Your task to perform on an android device: Search for Mexican restaurants on Maps Image 0: 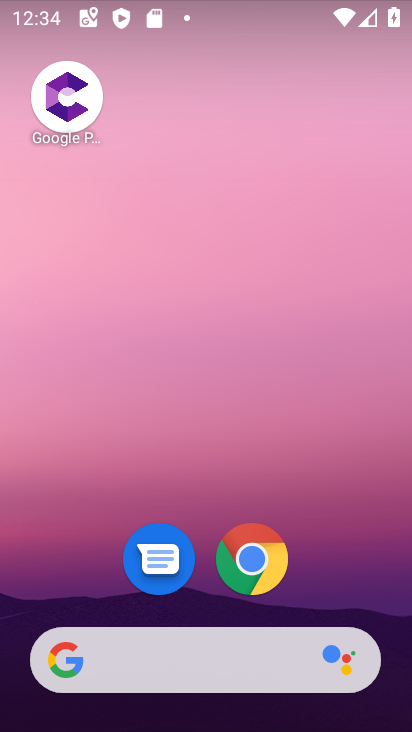
Step 0: drag from (195, 715) to (221, 33)
Your task to perform on an android device: Search for Mexican restaurants on Maps Image 1: 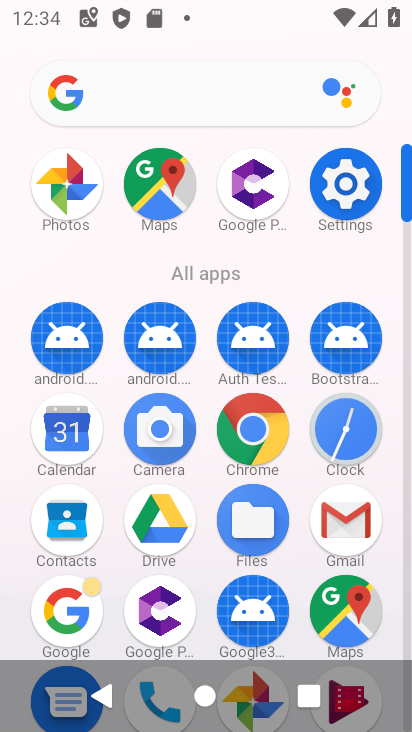
Step 1: click (159, 197)
Your task to perform on an android device: Search for Mexican restaurants on Maps Image 2: 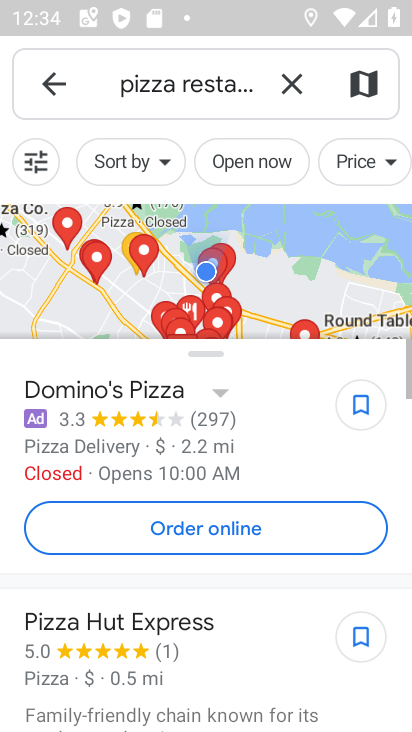
Step 2: click (291, 88)
Your task to perform on an android device: Search for Mexican restaurants on Maps Image 3: 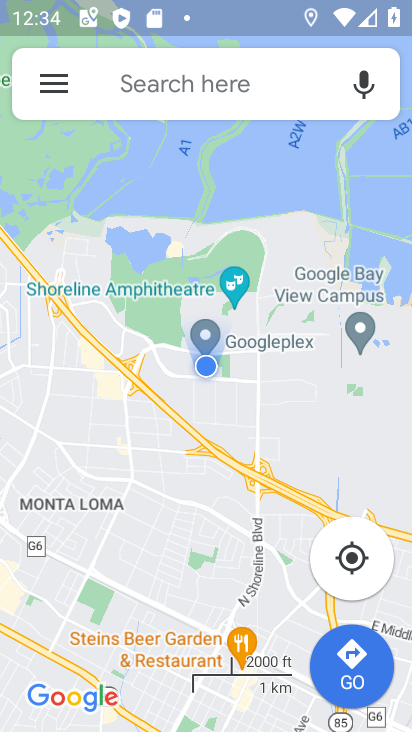
Step 3: click (226, 99)
Your task to perform on an android device: Search for Mexican restaurants on Maps Image 4: 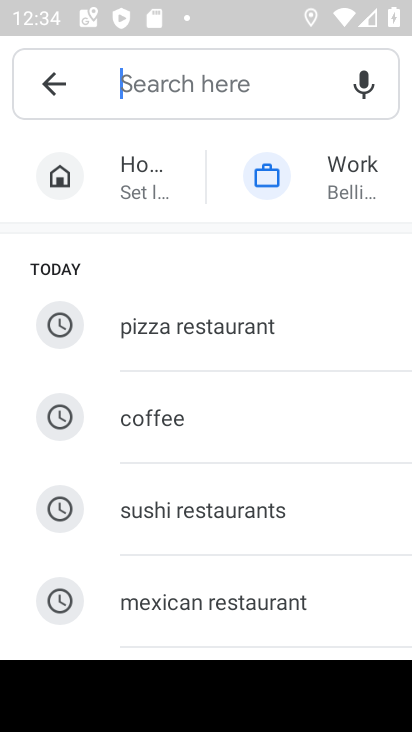
Step 4: click (223, 606)
Your task to perform on an android device: Search for Mexican restaurants on Maps Image 5: 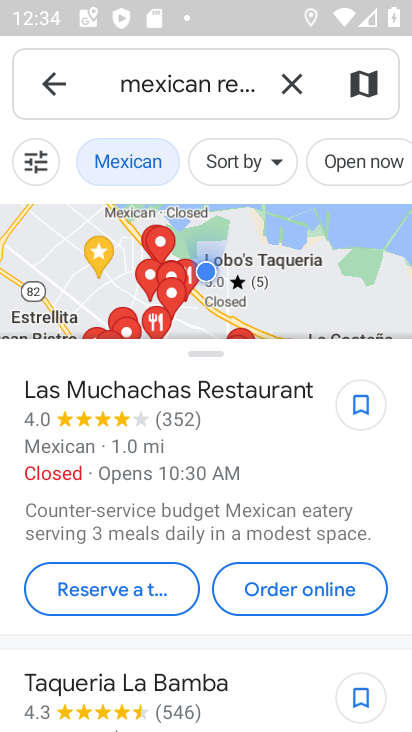
Step 5: task complete